Your task to perform on an android device: Open wifi settings Image 0: 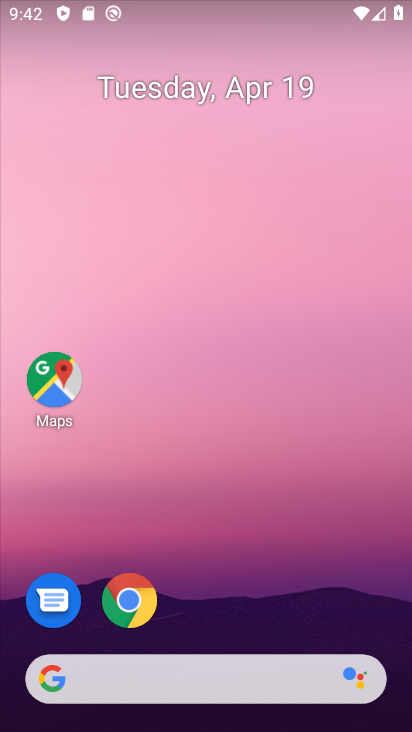
Step 0: drag from (210, 634) to (310, 115)
Your task to perform on an android device: Open wifi settings Image 1: 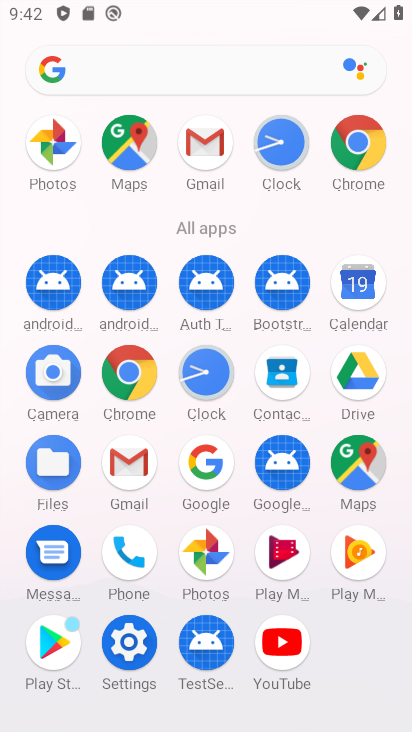
Step 1: click (137, 651)
Your task to perform on an android device: Open wifi settings Image 2: 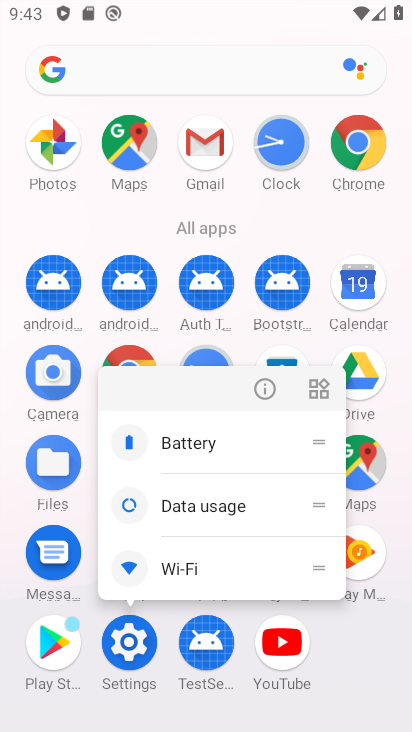
Step 2: click (122, 656)
Your task to perform on an android device: Open wifi settings Image 3: 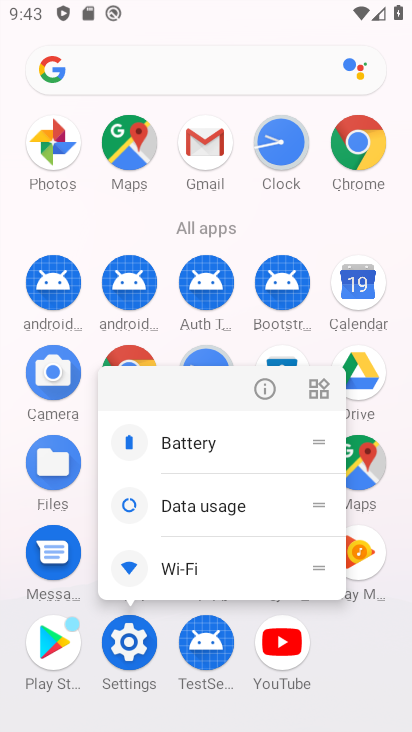
Step 3: click (117, 657)
Your task to perform on an android device: Open wifi settings Image 4: 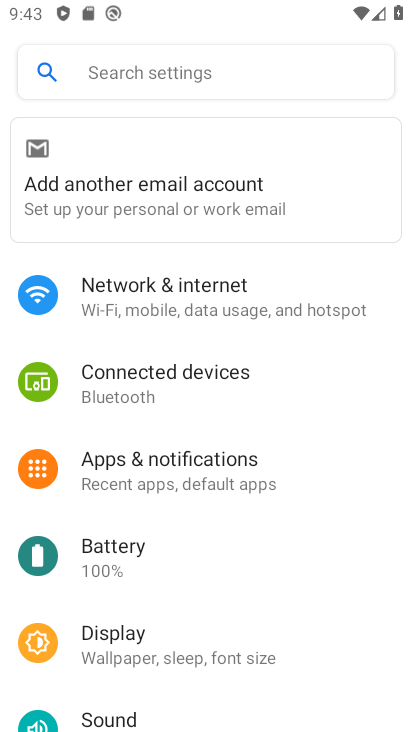
Step 4: click (242, 309)
Your task to perform on an android device: Open wifi settings Image 5: 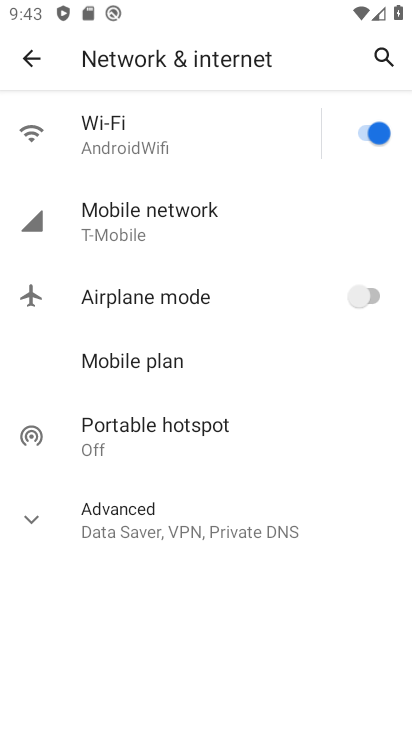
Step 5: click (168, 150)
Your task to perform on an android device: Open wifi settings Image 6: 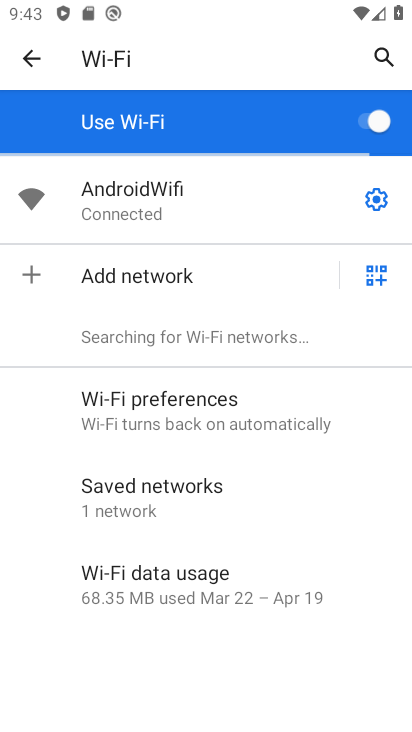
Step 6: task complete